Your task to perform on an android device: Open Google Chrome and click the shortcut for Amazon.com Image 0: 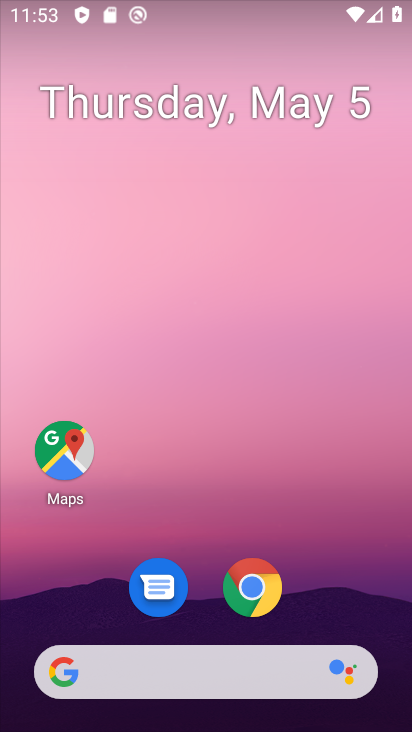
Step 0: click (255, 591)
Your task to perform on an android device: Open Google Chrome and click the shortcut for Amazon.com Image 1: 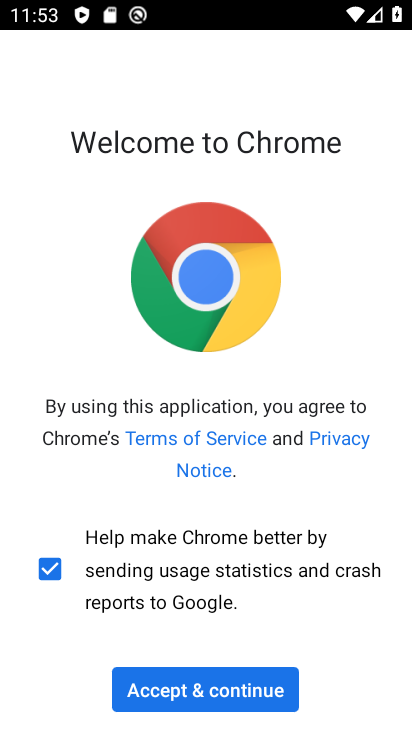
Step 1: click (266, 677)
Your task to perform on an android device: Open Google Chrome and click the shortcut for Amazon.com Image 2: 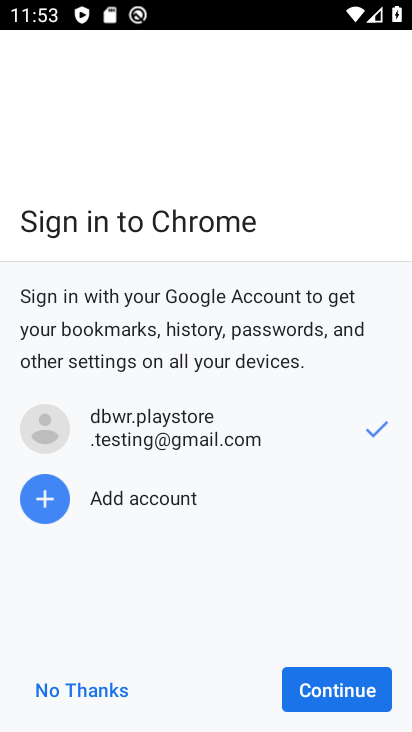
Step 2: click (309, 687)
Your task to perform on an android device: Open Google Chrome and click the shortcut for Amazon.com Image 3: 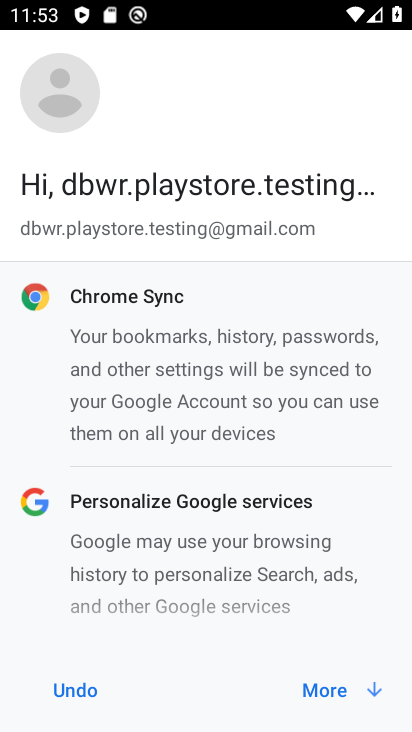
Step 3: click (329, 676)
Your task to perform on an android device: Open Google Chrome and click the shortcut for Amazon.com Image 4: 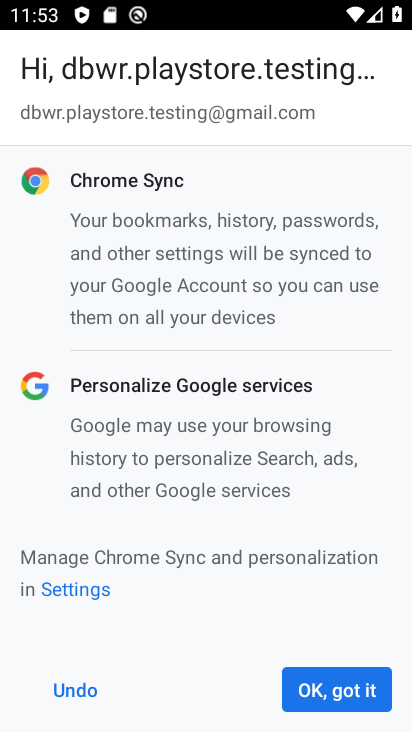
Step 4: click (331, 687)
Your task to perform on an android device: Open Google Chrome and click the shortcut for Amazon.com Image 5: 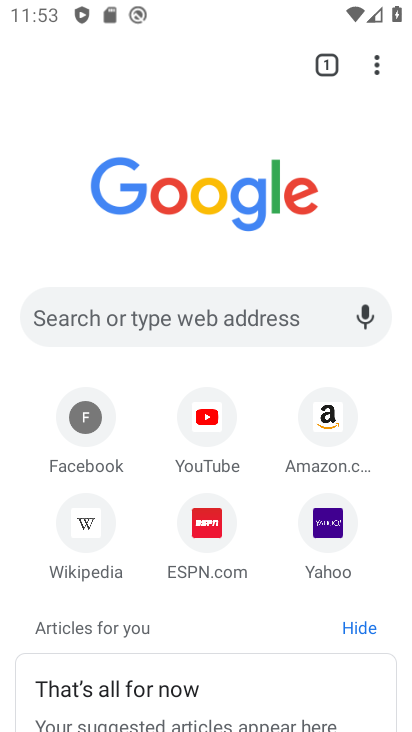
Step 5: click (372, 62)
Your task to perform on an android device: Open Google Chrome and click the shortcut for Amazon.com Image 6: 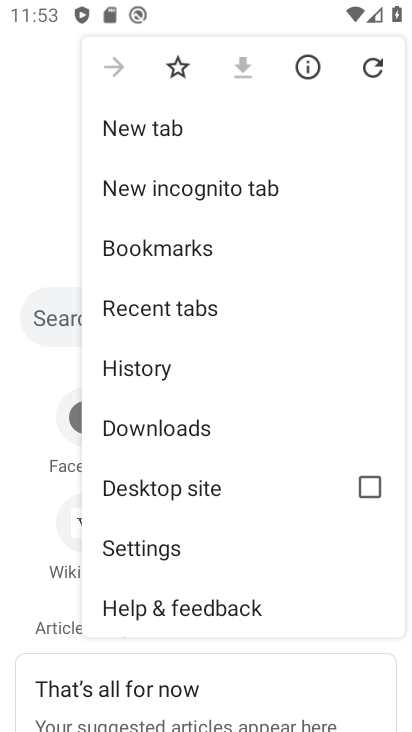
Step 6: click (45, 356)
Your task to perform on an android device: Open Google Chrome and click the shortcut for Amazon.com Image 7: 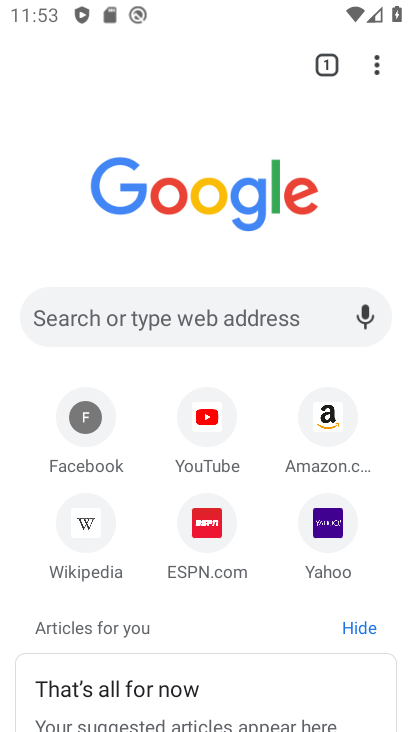
Step 7: click (320, 422)
Your task to perform on an android device: Open Google Chrome and click the shortcut for Amazon.com Image 8: 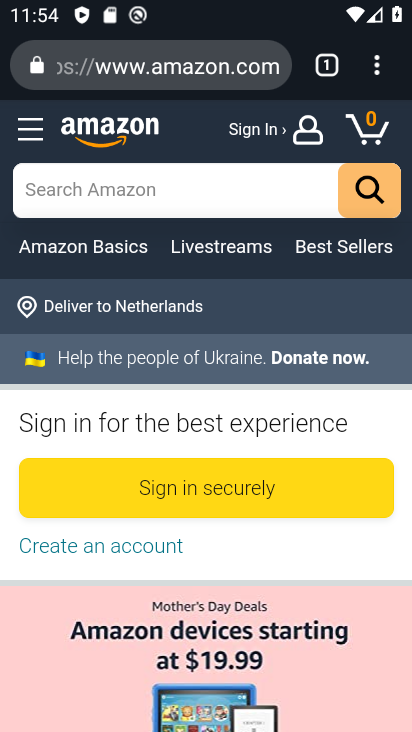
Step 8: task complete